Your task to perform on an android device: clear all cookies in the chrome app Image 0: 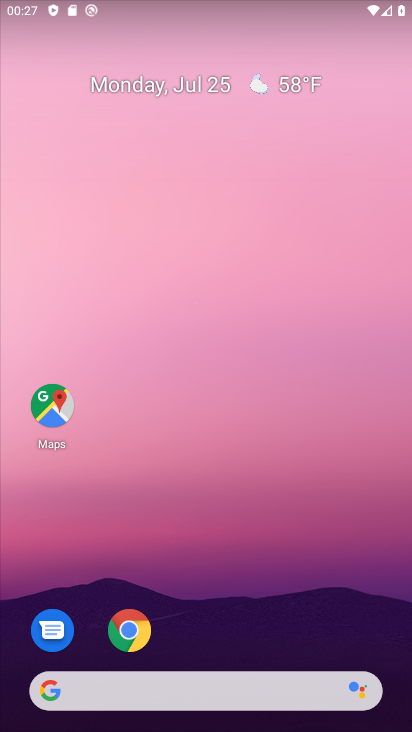
Step 0: drag from (257, 465) to (344, 8)
Your task to perform on an android device: clear all cookies in the chrome app Image 1: 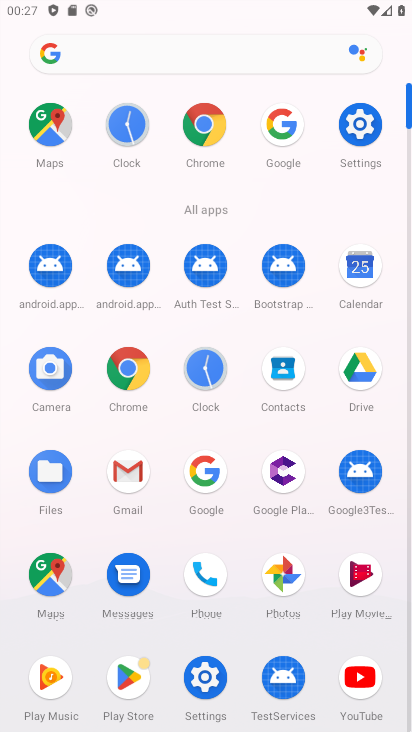
Step 1: click (192, 127)
Your task to perform on an android device: clear all cookies in the chrome app Image 2: 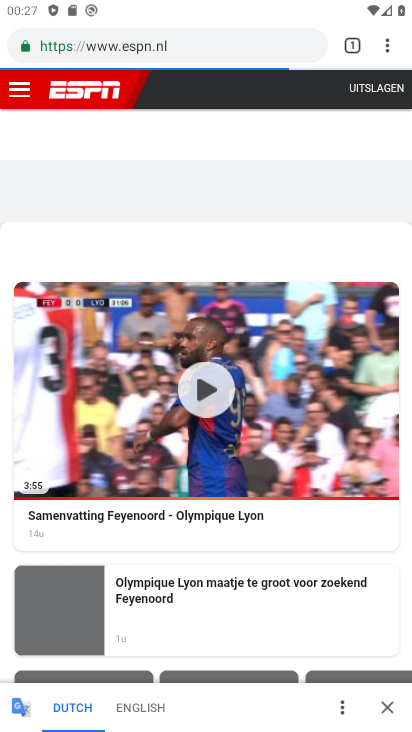
Step 2: drag from (385, 50) to (245, 257)
Your task to perform on an android device: clear all cookies in the chrome app Image 3: 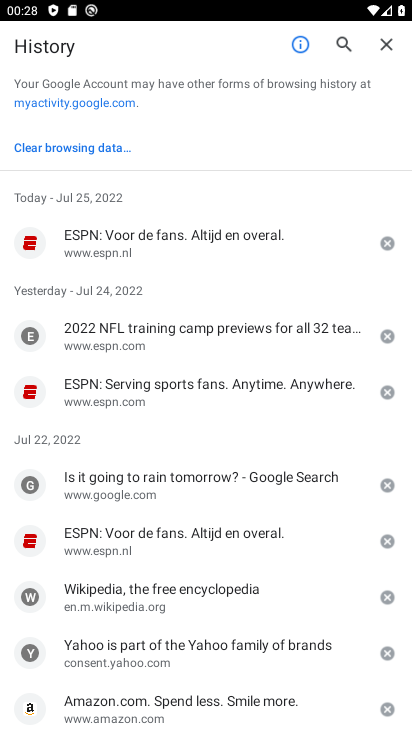
Step 3: click (90, 145)
Your task to perform on an android device: clear all cookies in the chrome app Image 4: 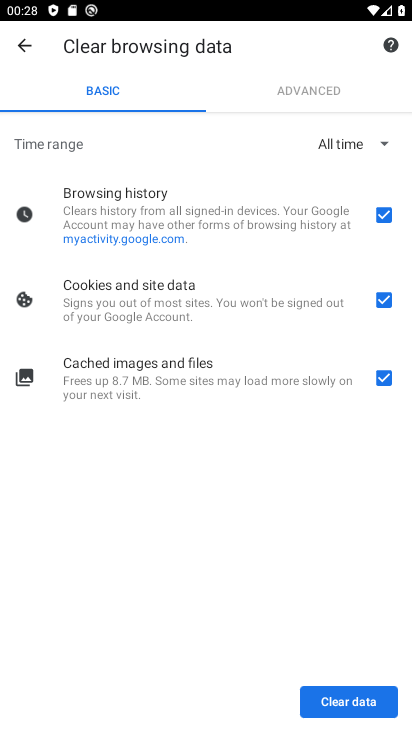
Step 4: click (385, 221)
Your task to perform on an android device: clear all cookies in the chrome app Image 5: 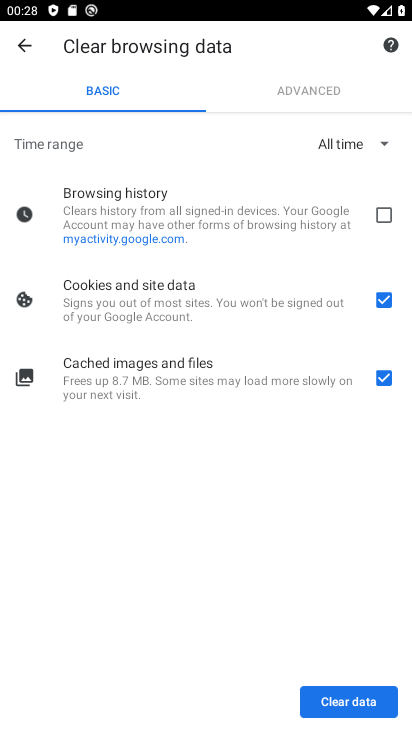
Step 5: click (373, 378)
Your task to perform on an android device: clear all cookies in the chrome app Image 6: 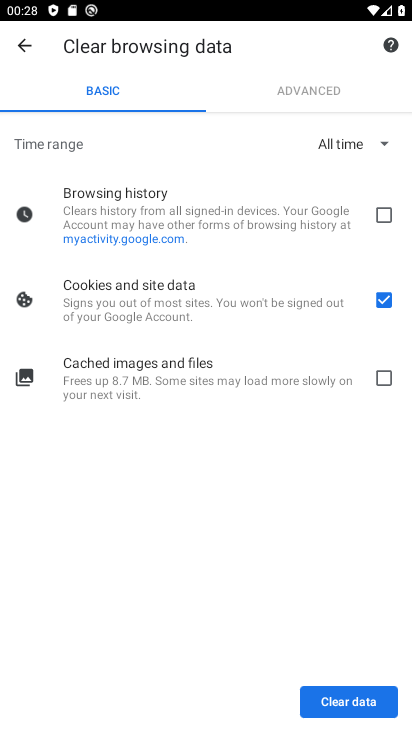
Step 6: click (338, 706)
Your task to perform on an android device: clear all cookies in the chrome app Image 7: 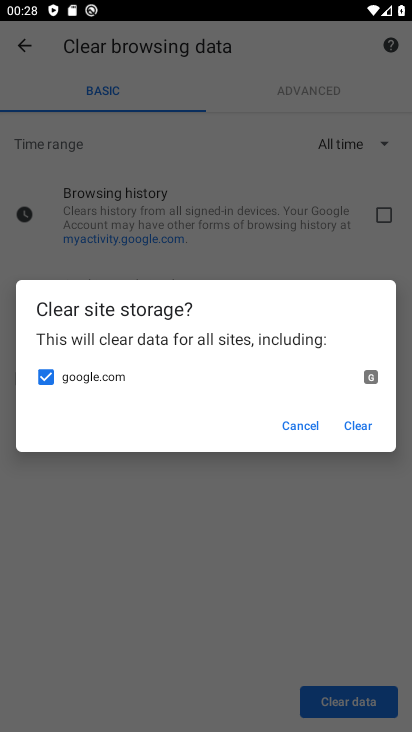
Step 7: click (359, 434)
Your task to perform on an android device: clear all cookies in the chrome app Image 8: 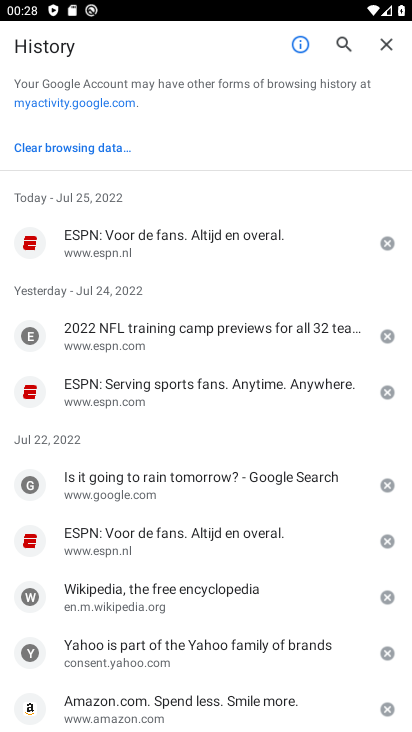
Step 8: task complete